Your task to perform on an android device: Go to battery settings Image 0: 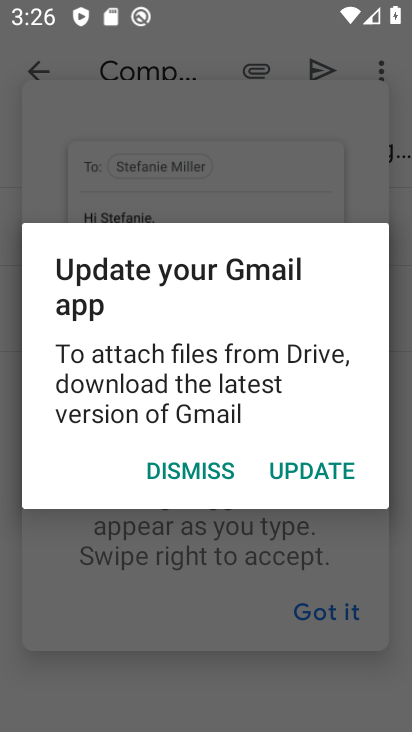
Step 0: click (306, 469)
Your task to perform on an android device: Go to battery settings Image 1: 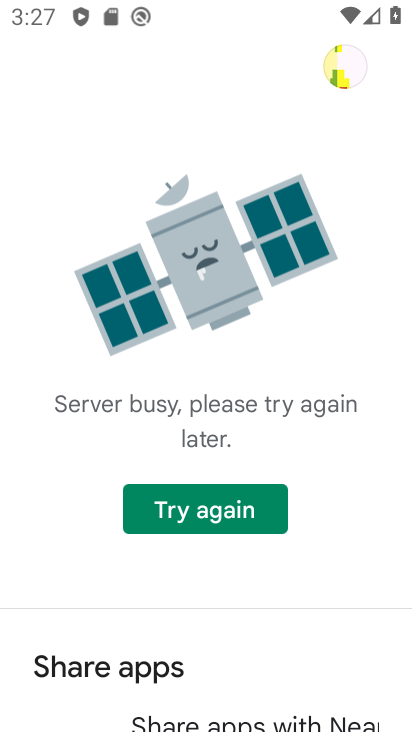
Step 1: press home button
Your task to perform on an android device: Go to battery settings Image 2: 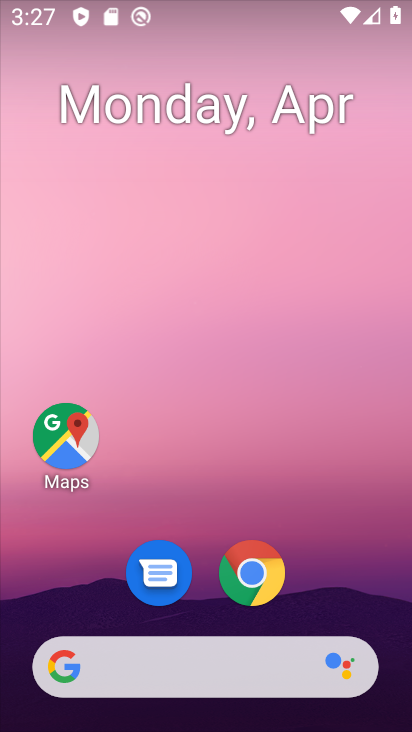
Step 2: drag from (201, 639) to (201, 190)
Your task to perform on an android device: Go to battery settings Image 3: 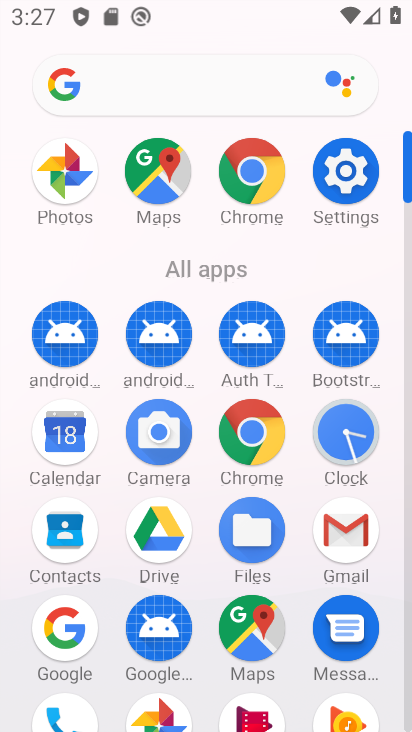
Step 3: click (332, 183)
Your task to perform on an android device: Go to battery settings Image 4: 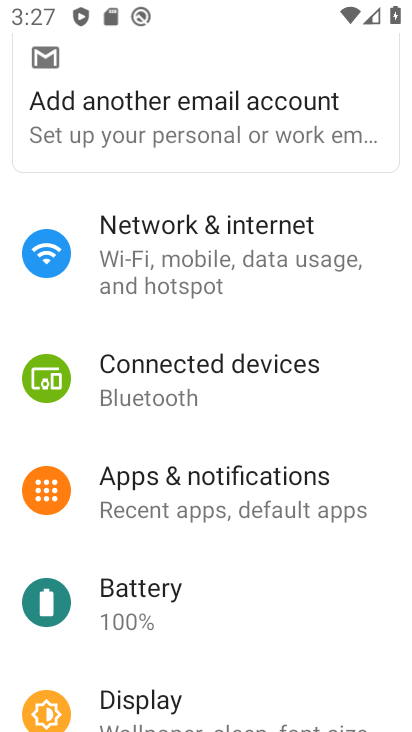
Step 4: click (135, 591)
Your task to perform on an android device: Go to battery settings Image 5: 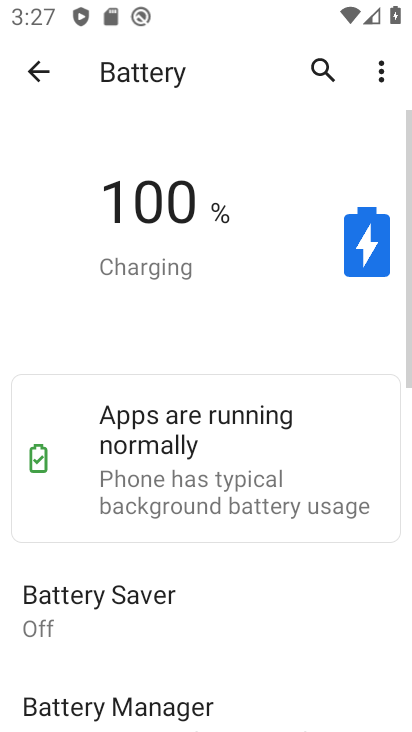
Step 5: click (381, 69)
Your task to perform on an android device: Go to battery settings Image 6: 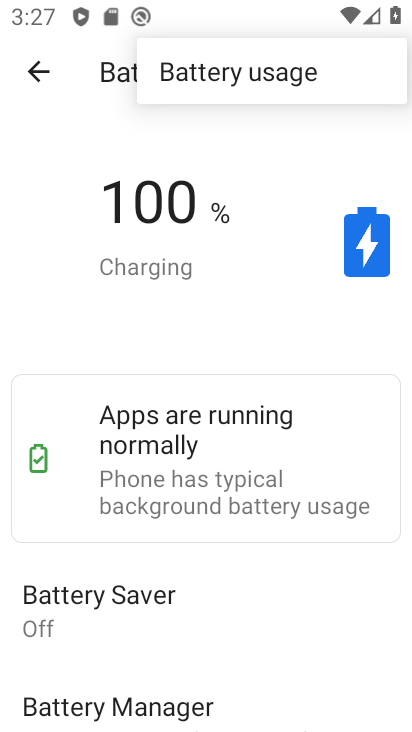
Step 6: click (231, 77)
Your task to perform on an android device: Go to battery settings Image 7: 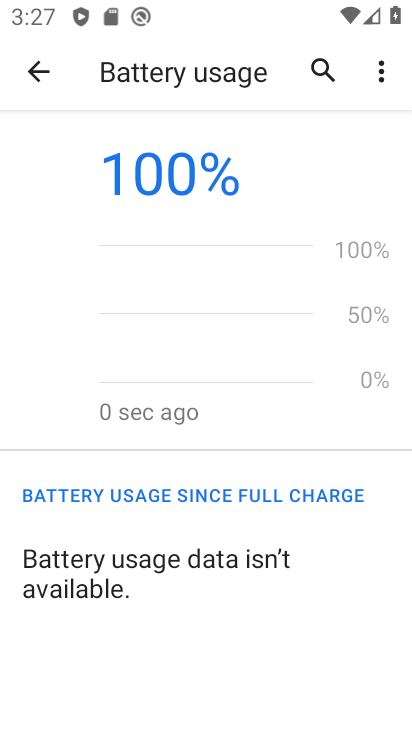
Step 7: task complete